Your task to perform on an android device: turn on translation in the chrome app Image 0: 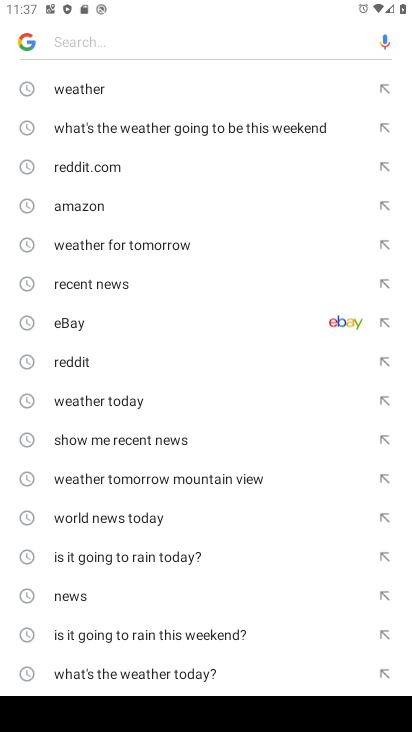
Step 0: press home button
Your task to perform on an android device: turn on translation in the chrome app Image 1: 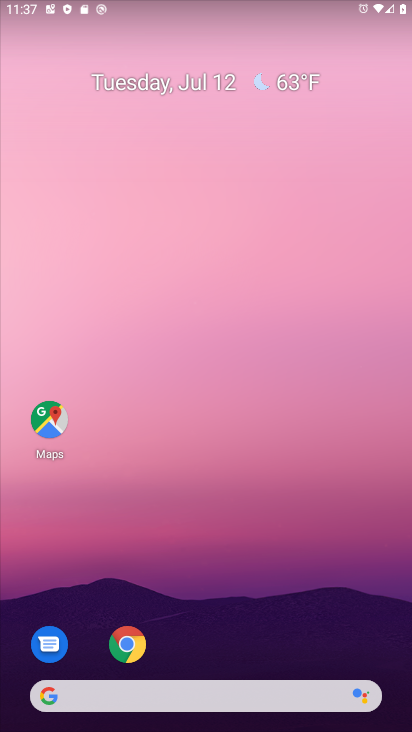
Step 1: click (129, 644)
Your task to perform on an android device: turn on translation in the chrome app Image 2: 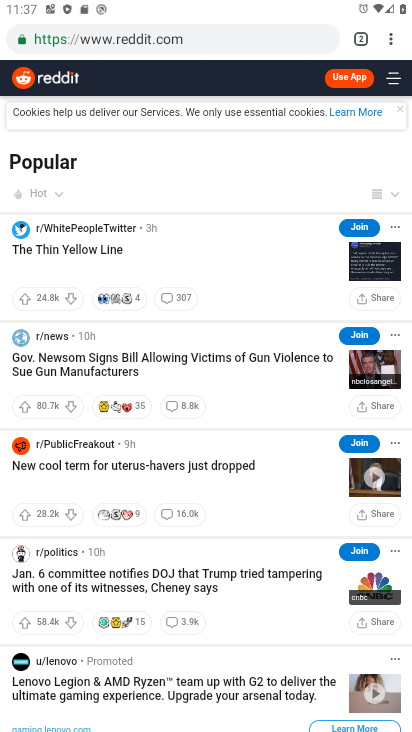
Step 2: click (391, 41)
Your task to perform on an android device: turn on translation in the chrome app Image 3: 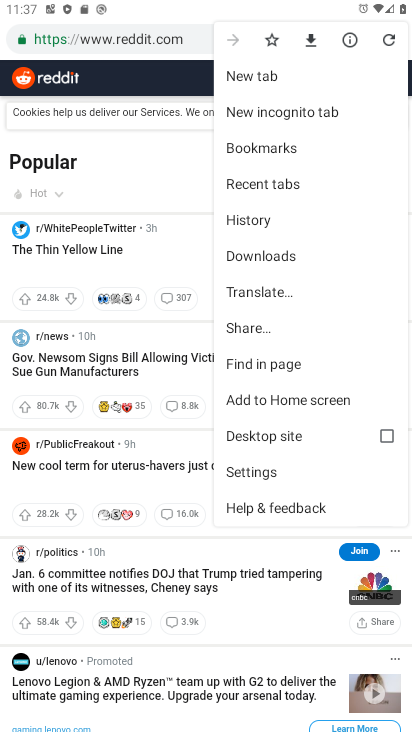
Step 3: click (252, 471)
Your task to perform on an android device: turn on translation in the chrome app Image 4: 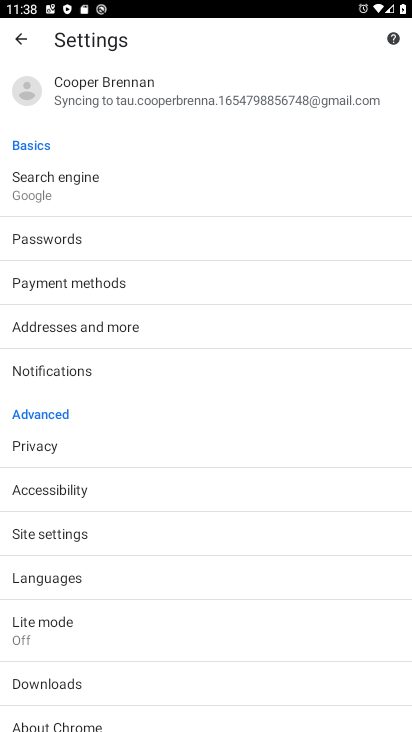
Step 4: click (45, 578)
Your task to perform on an android device: turn on translation in the chrome app Image 5: 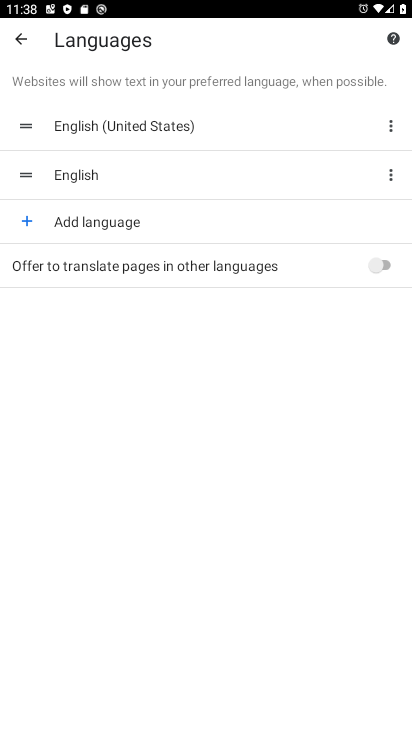
Step 5: click (379, 264)
Your task to perform on an android device: turn on translation in the chrome app Image 6: 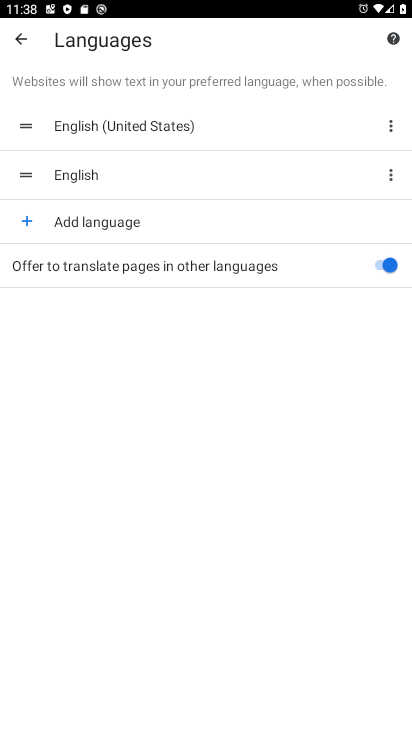
Step 6: task complete